Your task to perform on an android device: snooze an email in the gmail app Image 0: 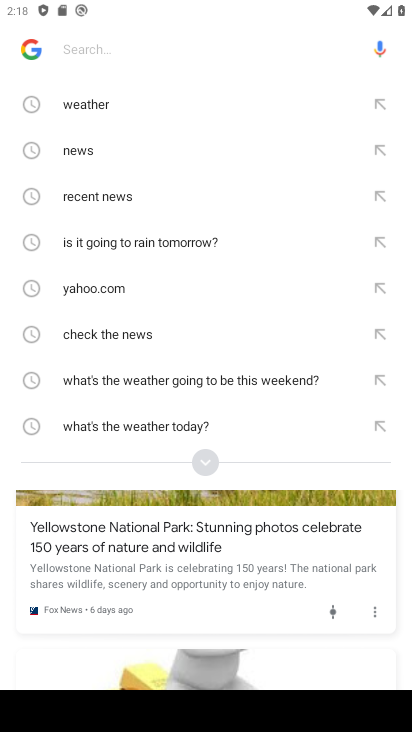
Step 0: press home button
Your task to perform on an android device: snooze an email in the gmail app Image 1: 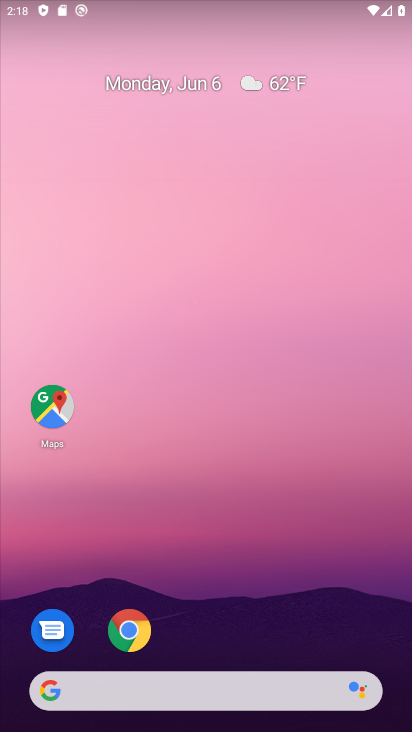
Step 1: drag from (267, 635) to (305, 72)
Your task to perform on an android device: snooze an email in the gmail app Image 2: 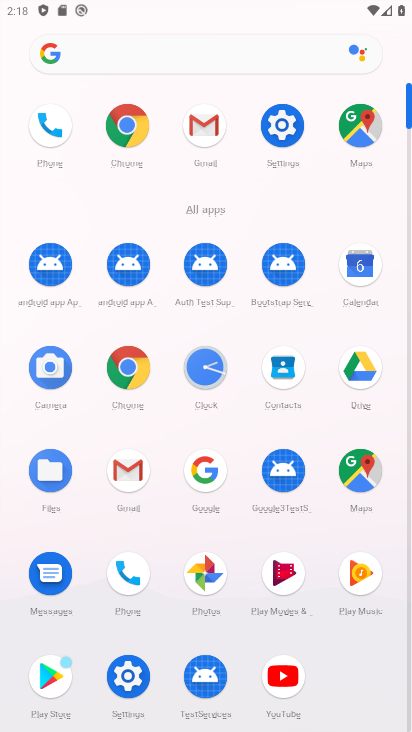
Step 2: click (126, 462)
Your task to perform on an android device: snooze an email in the gmail app Image 3: 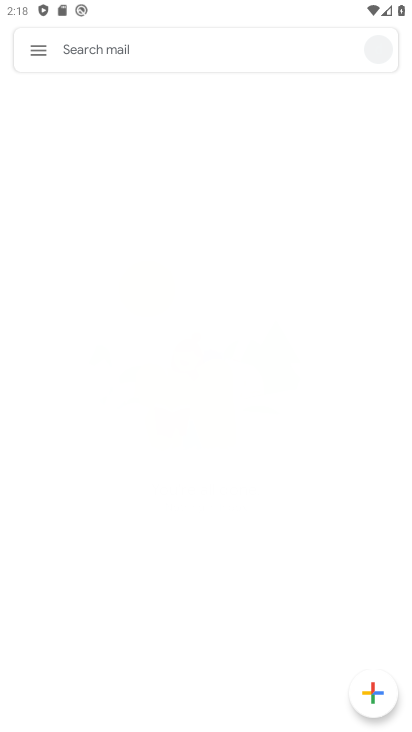
Step 3: click (39, 56)
Your task to perform on an android device: snooze an email in the gmail app Image 4: 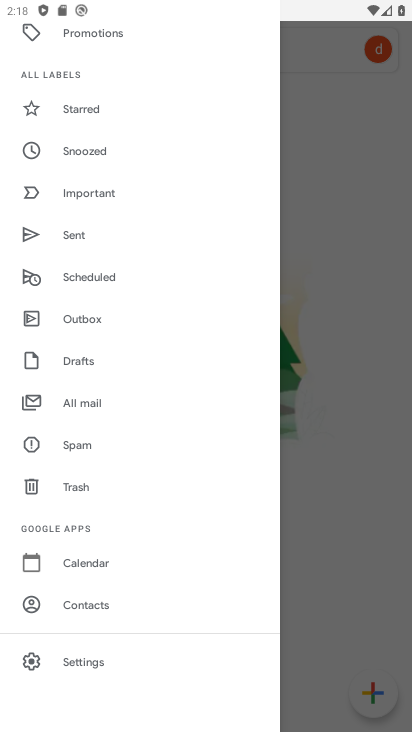
Step 4: click (76, 146)
Your task to perform on an android device: snooze an email in the gmail app Image 5: 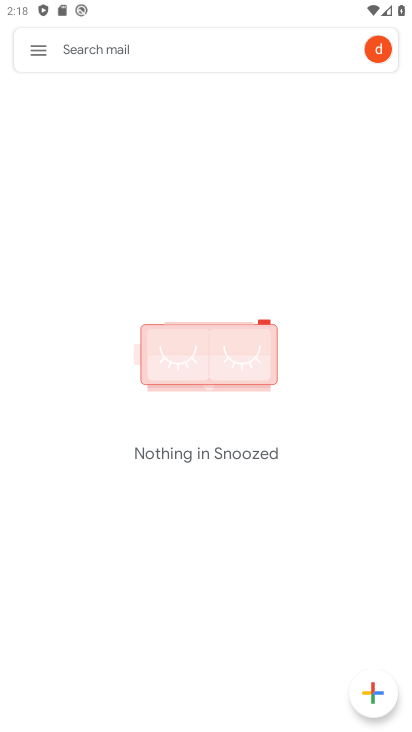
Step 5: task complete